Your task to perform on an android device: Search for a coffee table on IKEA Image 0: 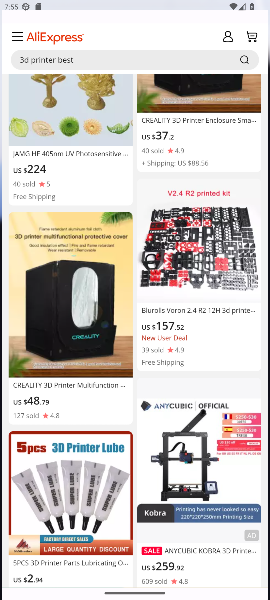
Step 0: press home button
Your task to perform on an android device: Search for a coffee table on IKEA Image 1: 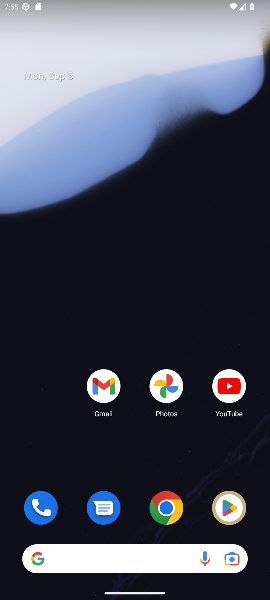
Step 1: drag from (139, 480) to (154, 73)
Your task to perform on an android device: Search for a coffee table on IKEA Image 2: 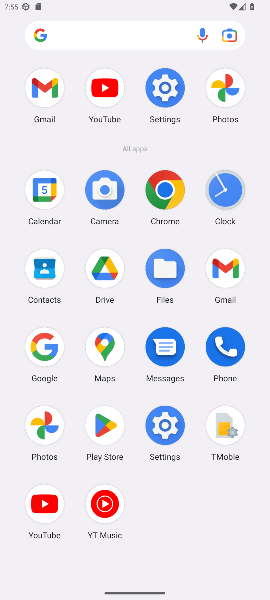
Step 2: click (167, 180)
Your task to perform on an android device: Search for a coffee table on IKEA Image 3: 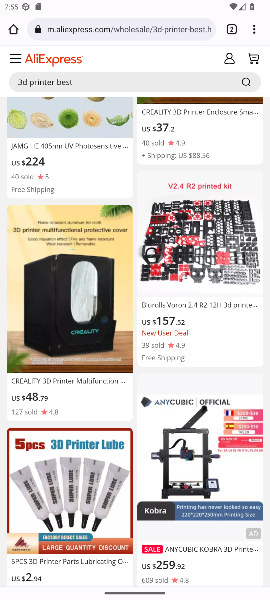
Step 3: click (228, 25)
Your task to perform on an android device: Search for a coffee table on IKEA Image 4: 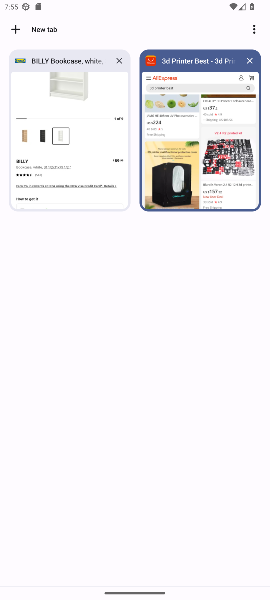
Step 4: click (252, 60)
Your task to perform on an android device: Search for a coffee table on IKEA Image 5: 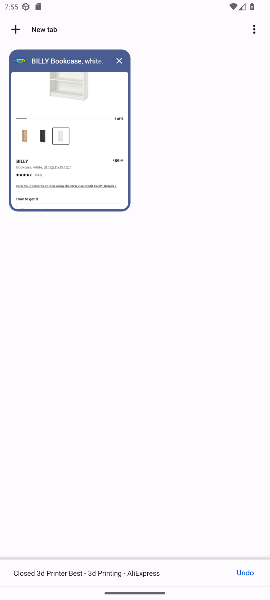
Step 5: click (119, 62)
Your task to perform on an android device: Search for a coffee table on IKEA Image 6: 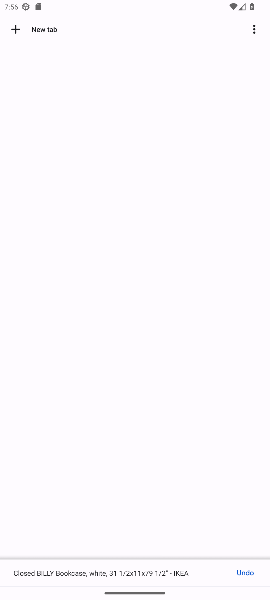
Step 6: click (17, 32)
Your task to perform on an android device: Search for a coffee table on IKEA Image 7: 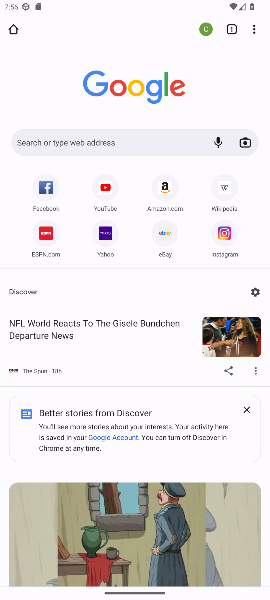
Step 7: click (79, 134)
Your task to perform on an android device: Search for a coffee table on IKEA Image 8: 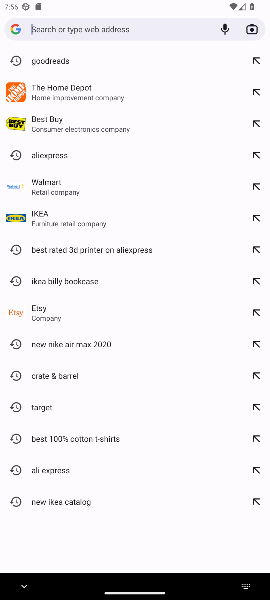
Step 8: type "coffee table on IKEA"
Your task to perform on an android device: Search for a coffee table on IKEA Image 9: 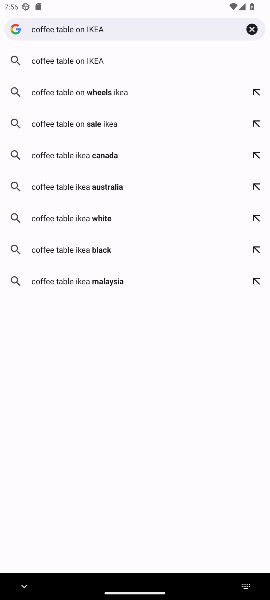
Step 9: click (81, 59)
Your task to perform on an android device: Search for a coffee table on IKEA Image 10: 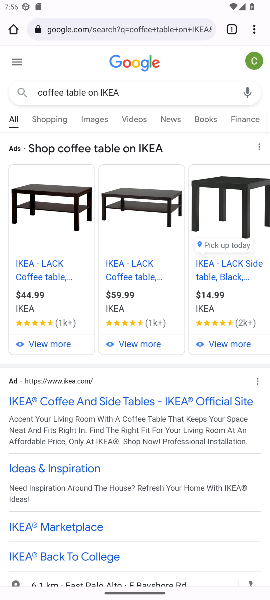
Step 10: click (132, 399)
Your task to perform on an android device: Search for a coffee table on IKEA Image 11: 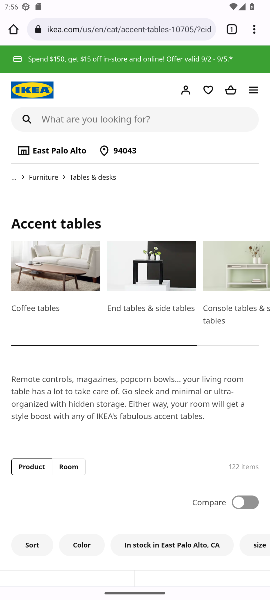
Step 11: task complete